Your task to perform on an android device: turn on bluetooth scan Image 0: 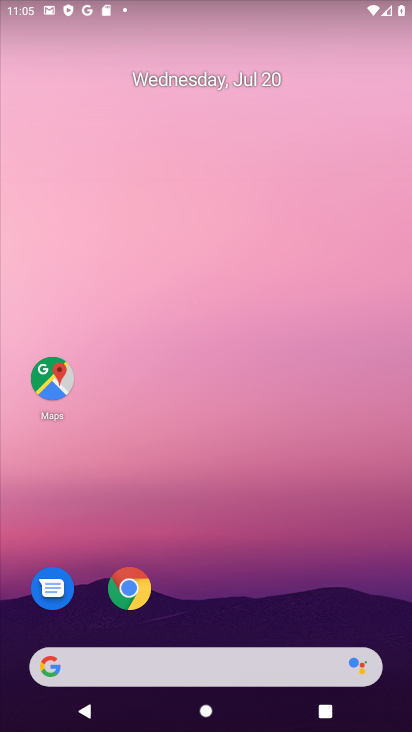
Step 0: drag from (209, 500) to (137, 0)
Your task to perform on an android device: turn on bluetooth scan Image 1: 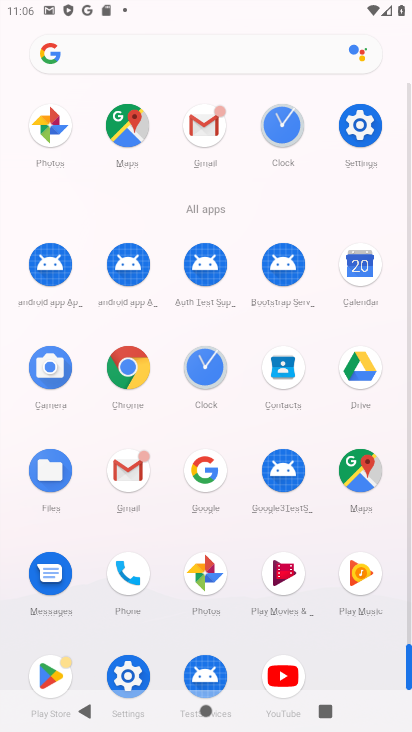
Step 1: click (349, 132)
Your task to perform on an android device: turn on bluetooth scan Image 2: 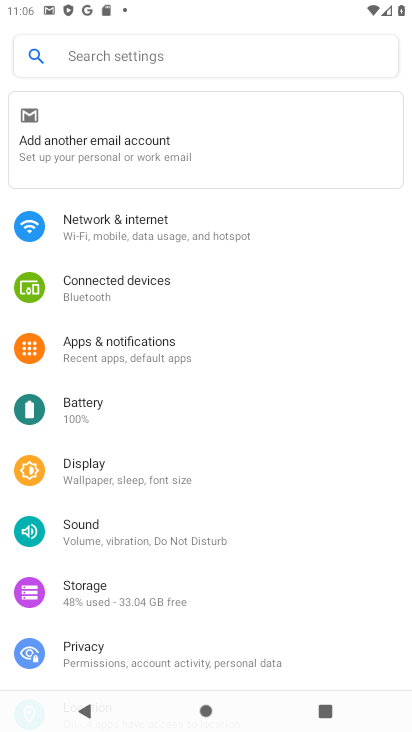
Step 2: drag from (145, 539) to (268, 148)
Your task to perform on an android device: turn on bluetooth scan Image 3: 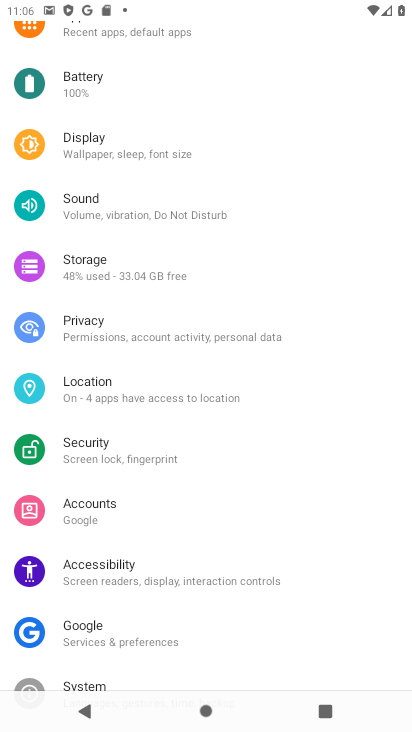
Step 3: drag from (252, 523) to (317, 201)
Your task to perform on an android device: turn on bluetooth scan Image 4: 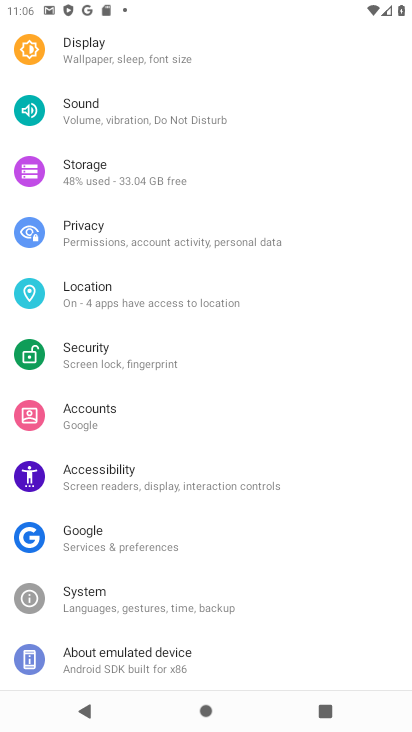
Step 4: click (80, 293)
Your task to perform on an android device: turn on bluetooth scan Image 5: 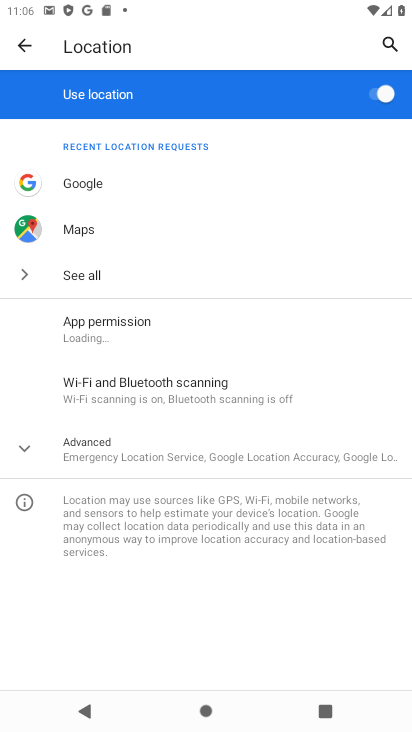
Step 5: click (153, 461)
Your task to perform on an android device: turn on bluetooth scan Image 6: 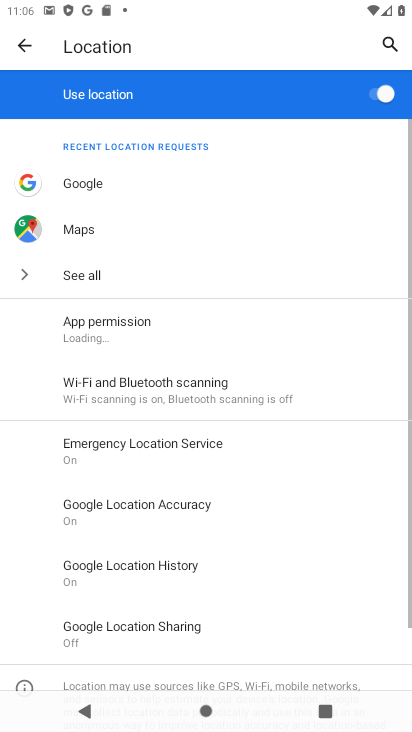
Step 6: click (206, 407)
Your task to perform on an android device: turn on bluetooth scan Image 7: 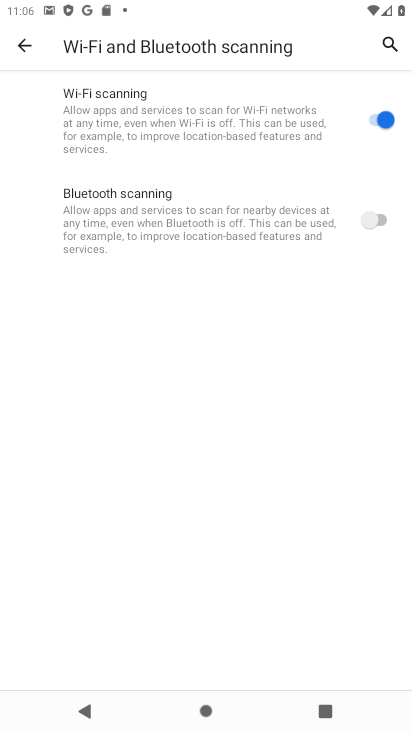
Step 7: click (362, 214)
Your task to perform on an android device: turn on bluetooth scan Image 8: 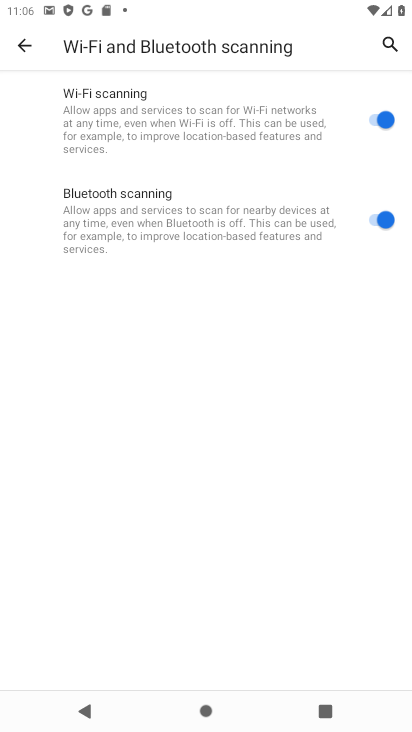
Step 8: task complete